Your task to perform on an android device: Go to Maps Image 0: 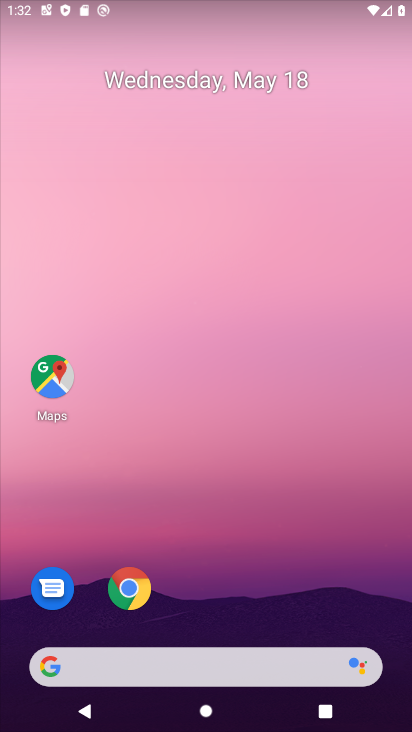
Step 0: drag from (254, 602) to (258, 172)
Your task to perform on an android device: Go to Maps Image 1: 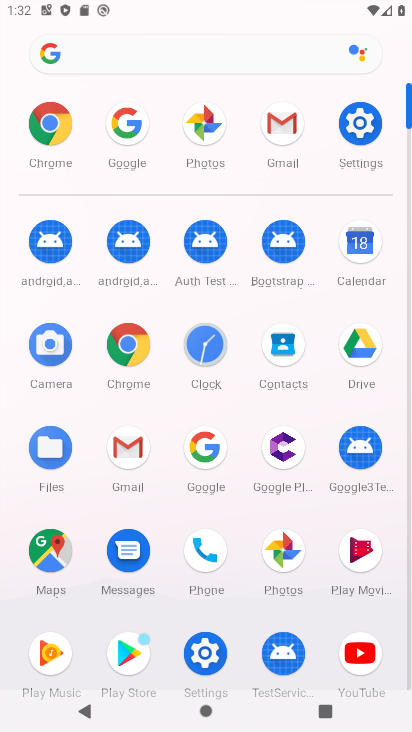
Step 1: click (34, 554)
Your task to perform on an android device: Go to Maps Image 2: 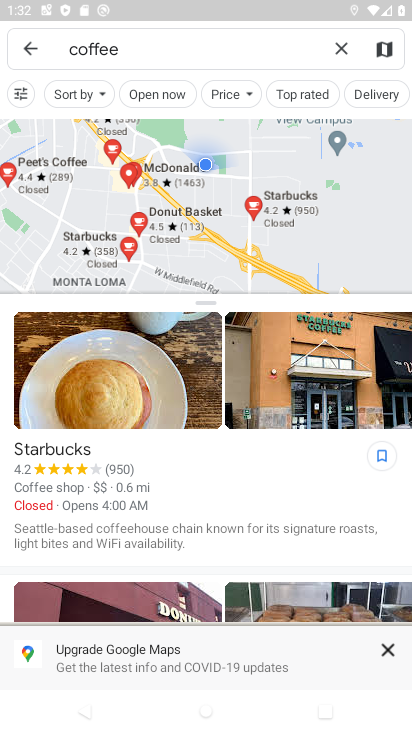
Step 2: task complete